Your task to perform on an android device: Search for custom wallets on etsy. Image 0: 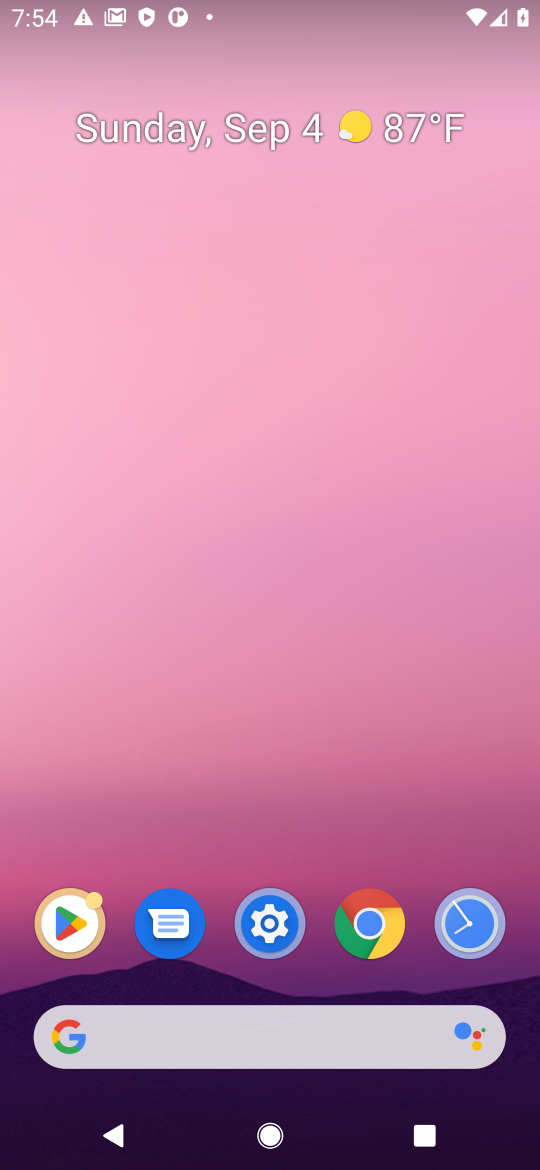
Step 0: press home button
Your task to perform on an android device: Search for custom wallets on etsy. Image 1: 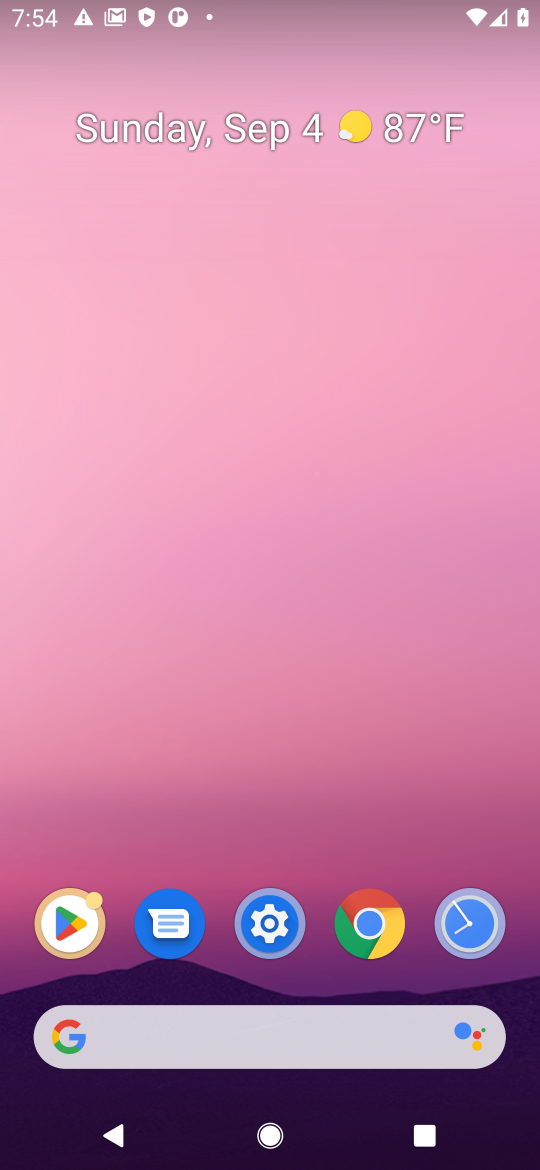
Step 1: click (385, 1029)
Your task to perform on an android device: Search for custom wallets on etsy. Image 2: 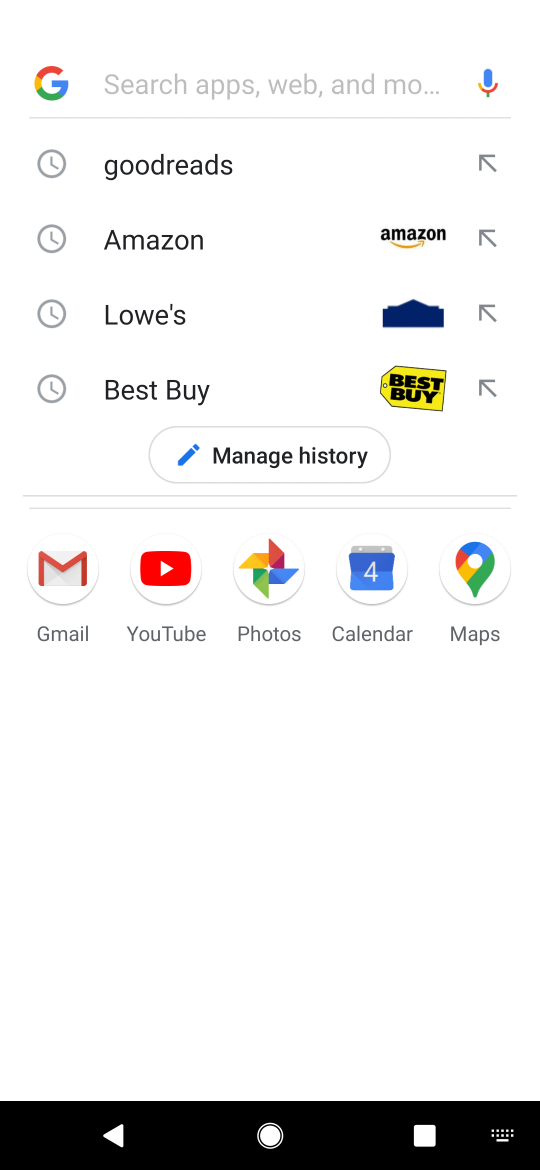
Step 2: press enter
Your task to perform on an android device: Search for custom wallets on etsy. Image 3: 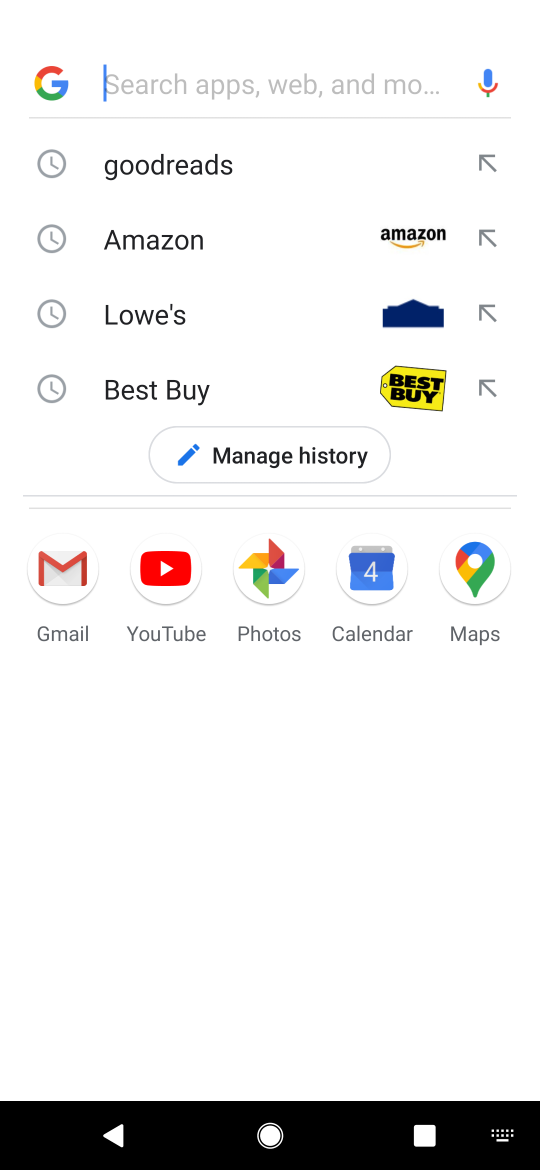
Step 3: type "etsy"
Your task to perform on an android device: Search for custom wallets on etsy. Image 4: 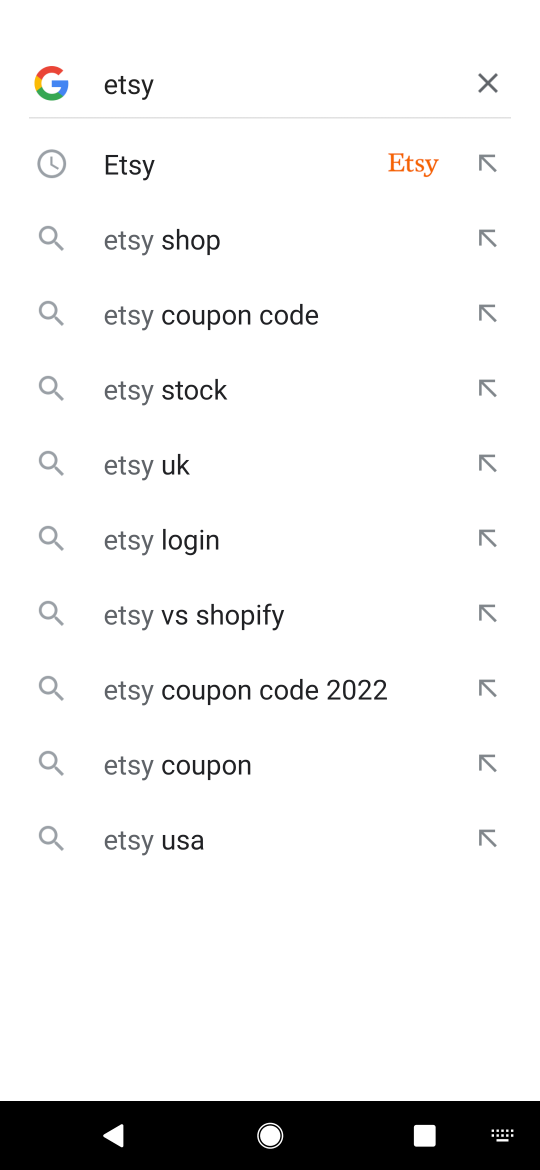
Step 4: click (285, 159)
Your task to perform on an android device: Search for custom wallets on etsy. Image 5: 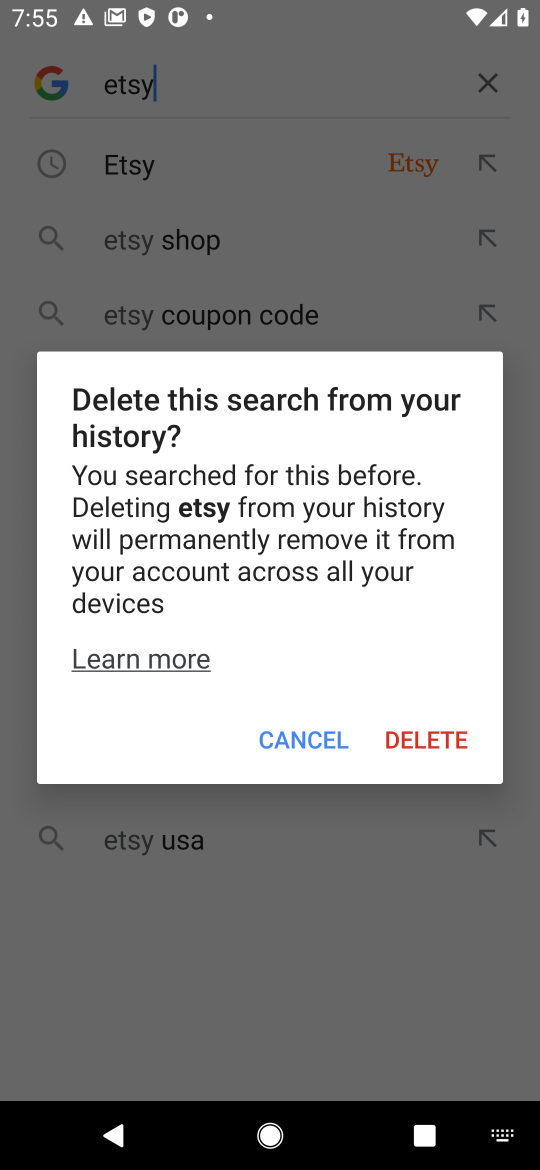
Step 5: click (292, 737)
Your task to perform on an android device: Search for custom wallets on etsy. Image 6: 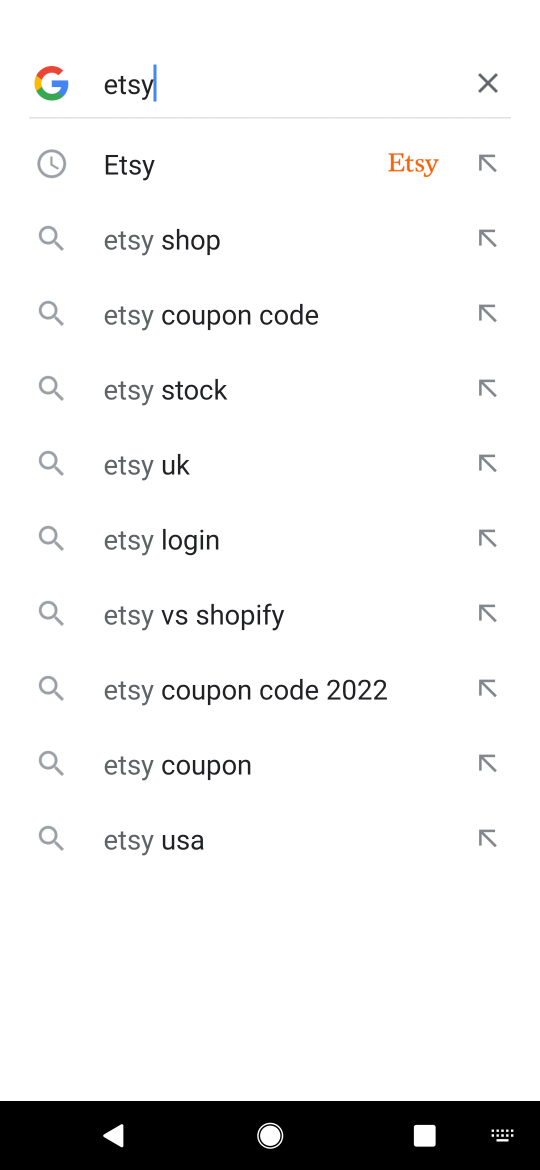
Step 6: click (150, 169)
Your task to perform on an android device: Search for custom wallets on etsy. Image 7: 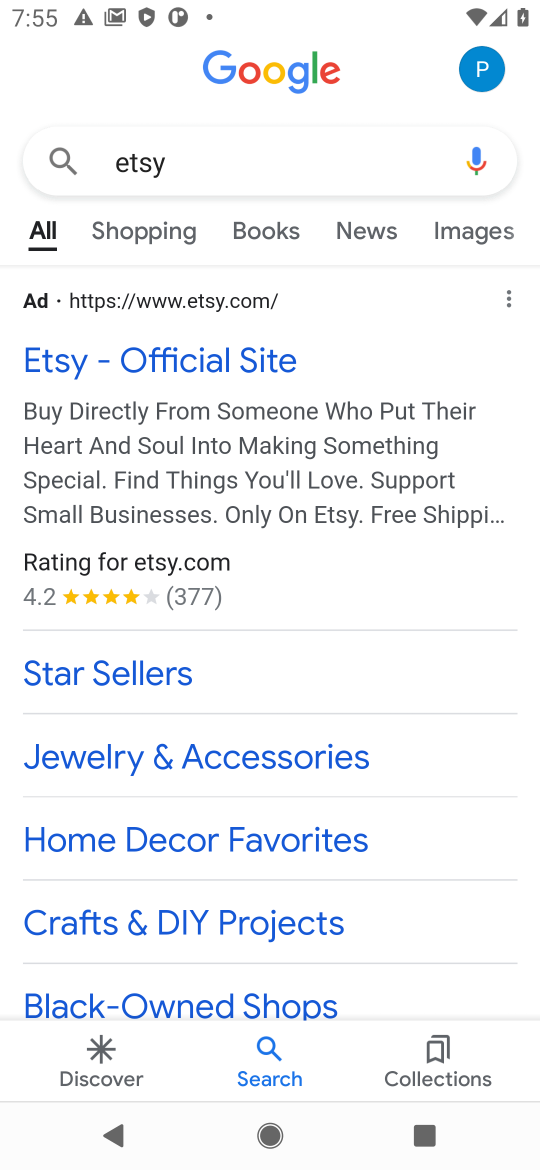
Step 7: click (233, 357)
Your task to perform on an android device: Search for custom wallets on etsy. Image 8: 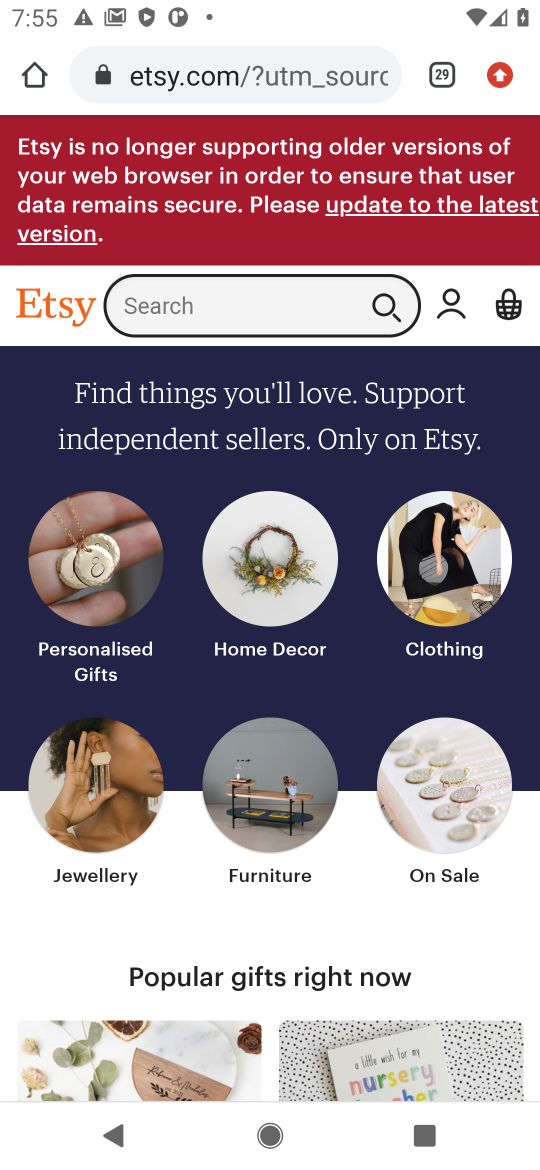
Step 8: click (206, 303)
Your task to perform on an android device: Search for custom wallets on etsy. Image 9: 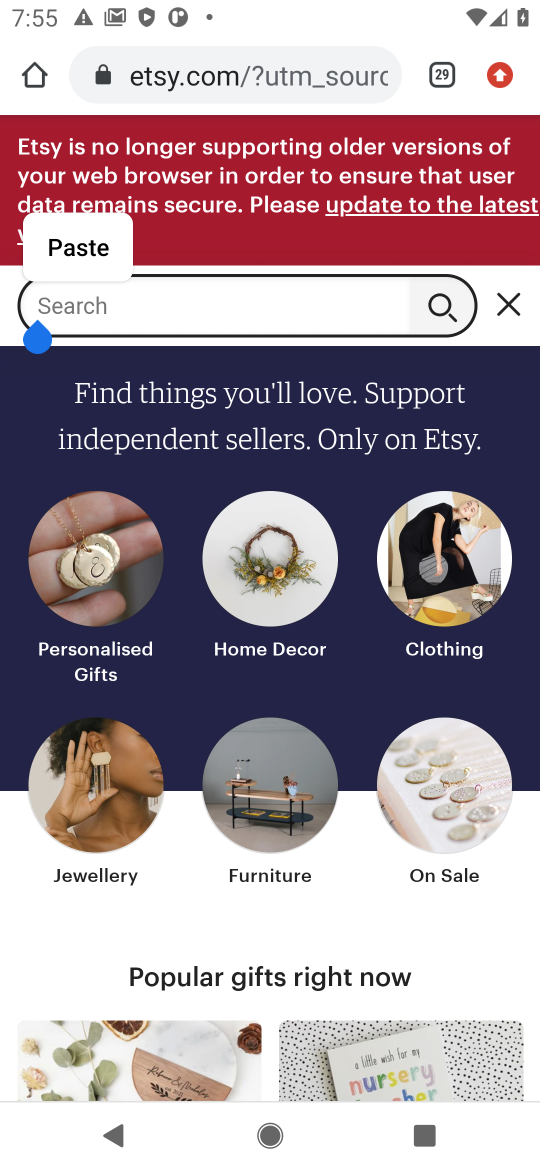
Step 9: press enter
Your task to perform on an android device: Search for custom wallets on etsy. Image 10: 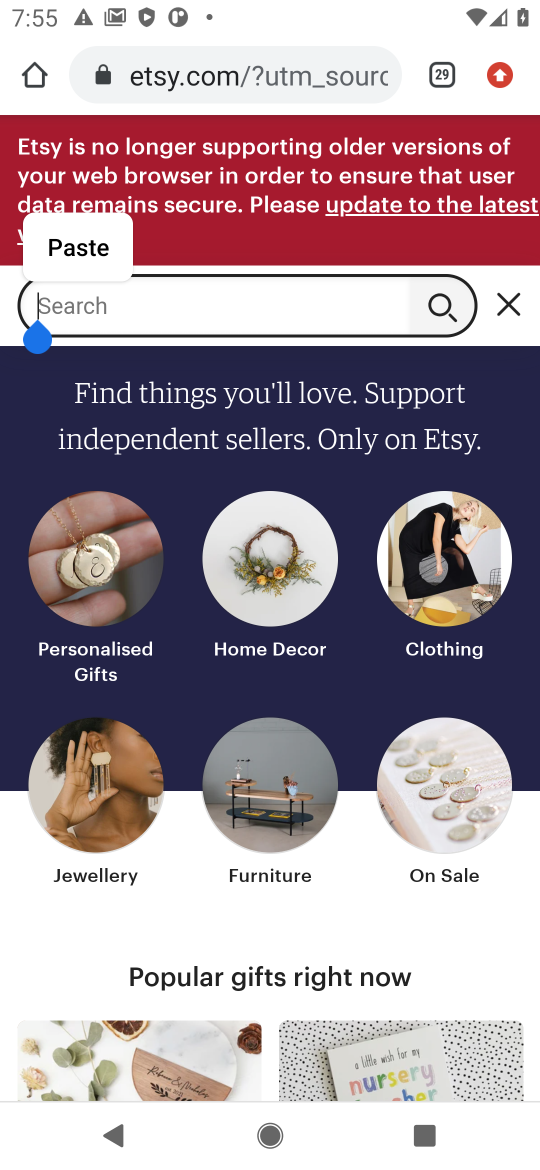
Step 10: type "custom wallets"
Your task to perform on an android device: Search for custom wallets on etsy. Image 11: 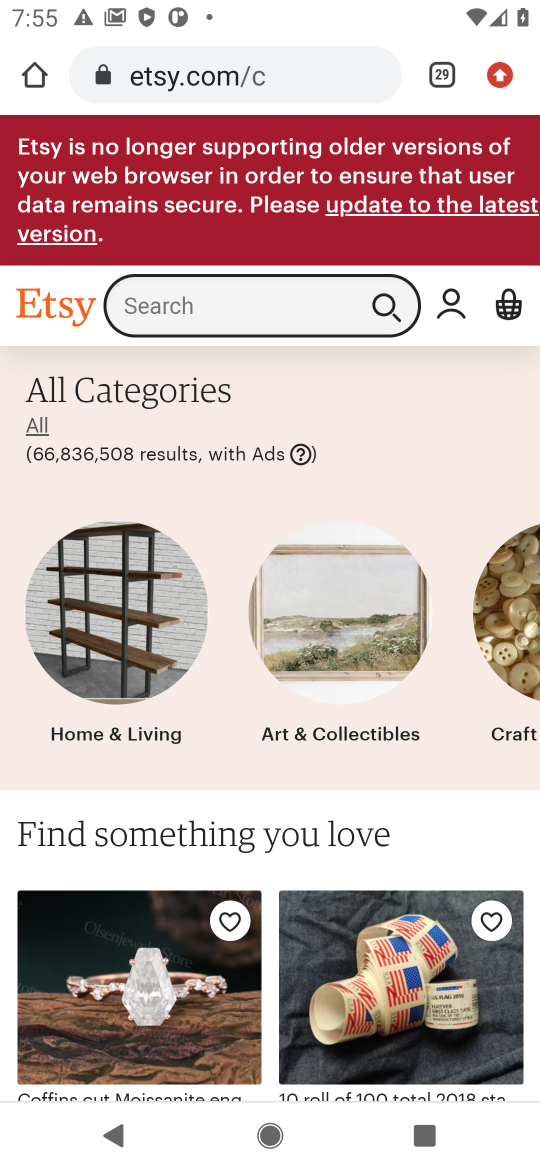
Step 11: click (257, 295)
Your task to perform on an android device: Search for custom wallets on etsy. Image 12: 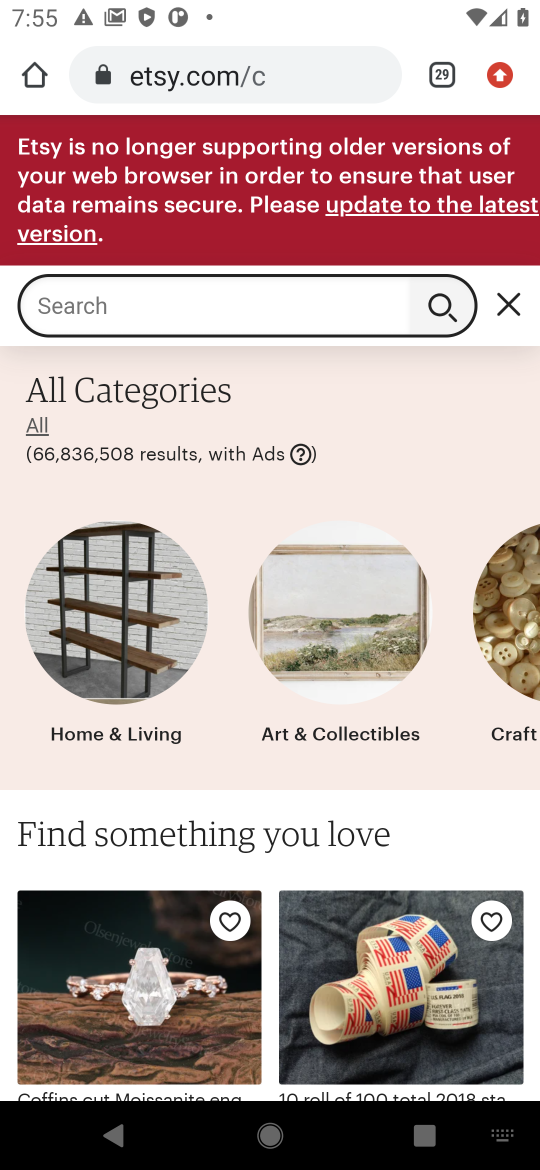
Step 12: type "custom wallets"
Your task to perform on an android device: Search for custom wallets on etsy. Image 13: 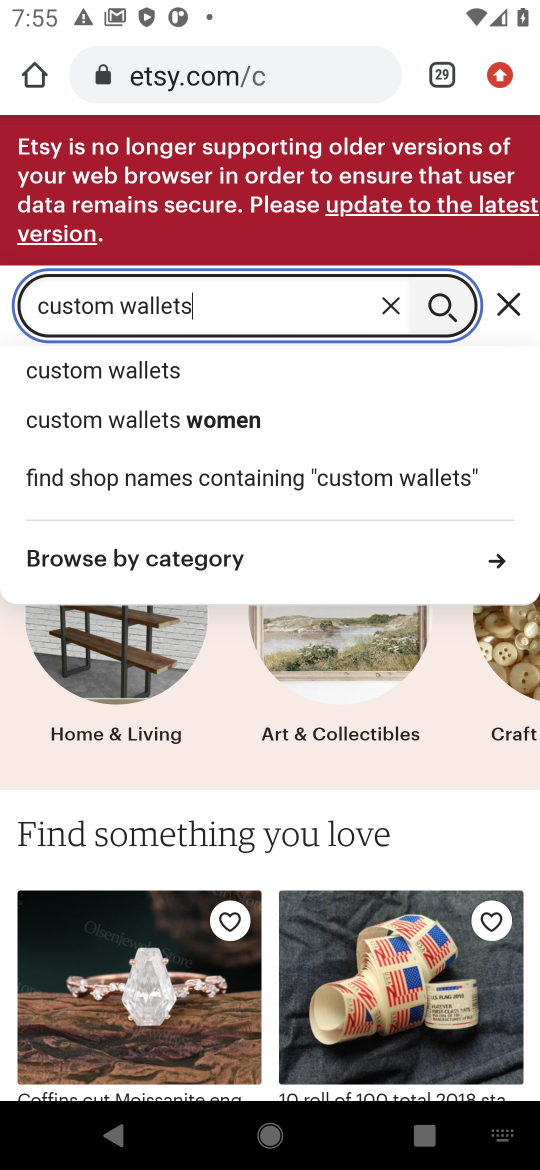
Step 13: click (151, 364)
Your task to perform on an android device: Search for custom wallets on etsy. Image 14: 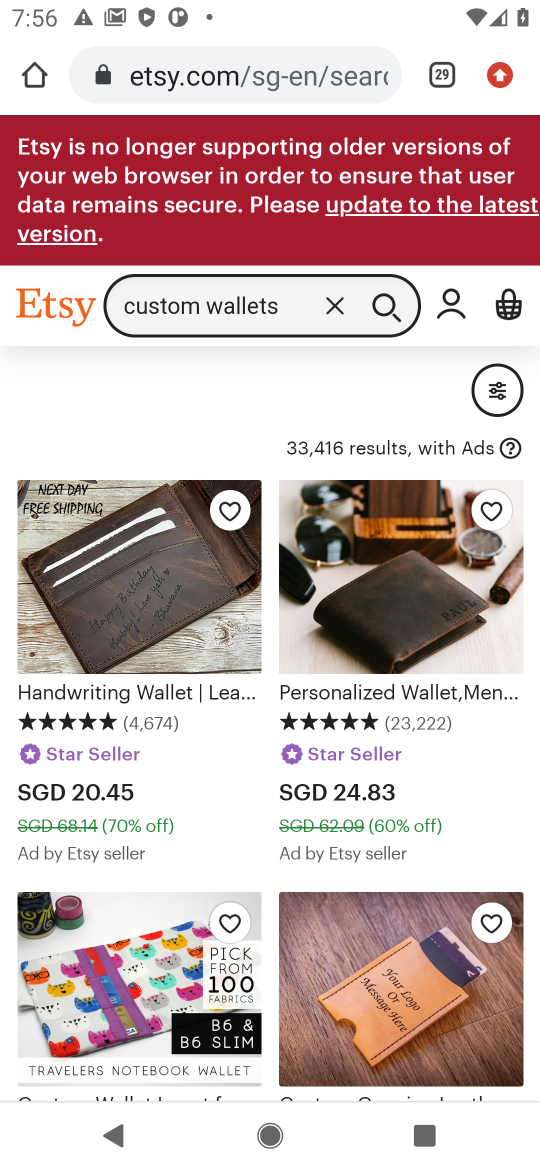
Step 14: task complete